Your task to perform on an android device: Play the last video I watched on Youtube Image 0: 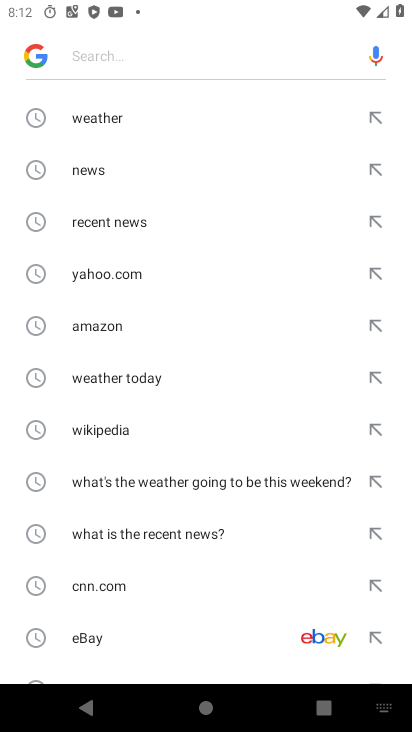
Step 0: press home button
Your task to perform on an android device: Play the last video I watched on Youtube Image 1: 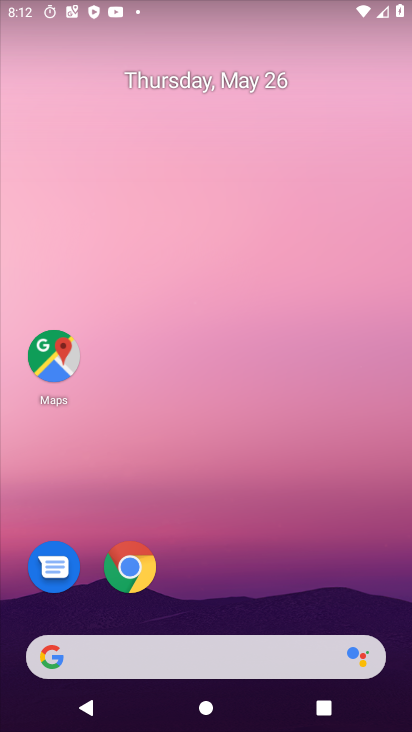
Step 1: drag from (144, 657) to (332, 11)
Your task to perform on an android device: Play the last video I watched on Youtube Image 2: 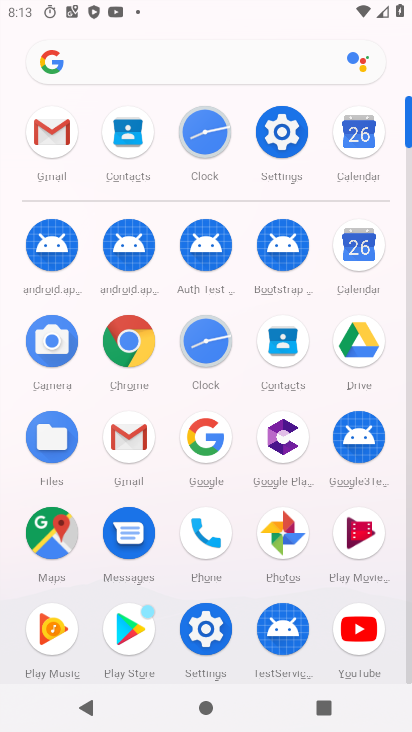
Step 2: click (363, 639)
Your task to perform on an android device: Play the last video I watched on Youtube Image 3: 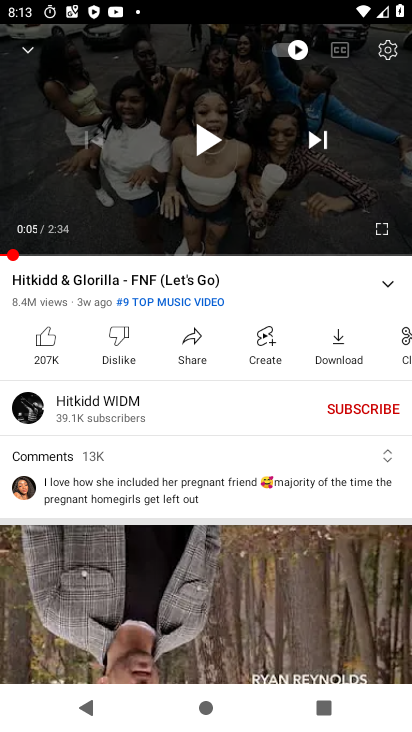
Step 3: click (218, 150)
Your task to perform on an android device: Play the last video I watched on Youtube Image 4: 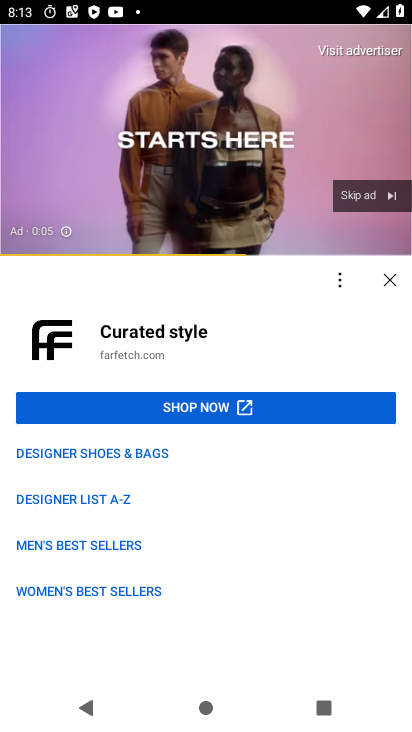
Step 4: click (360, 201)
Your task to perform on an android device: Play the last video I watched on Youtube Image 5: 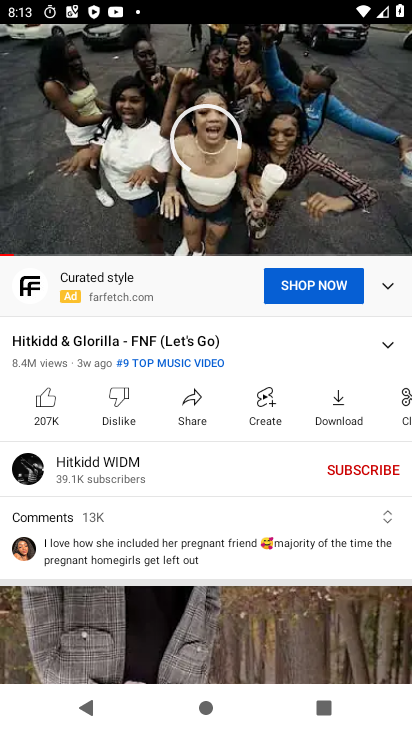
Step 5: click (219, 141)
Your task to perform on an android device: Play the last video I watched on Youtube Image 6: 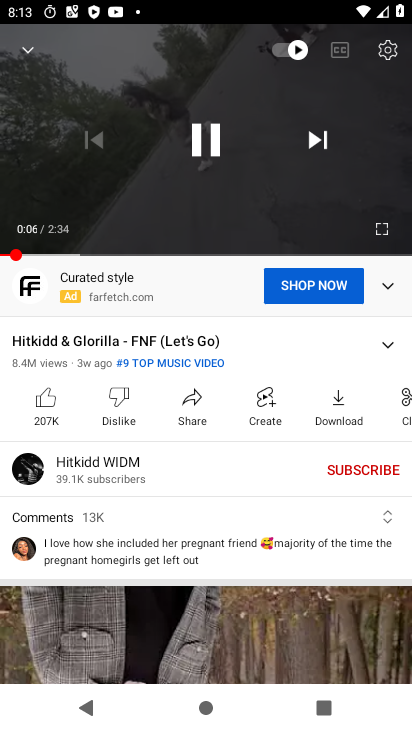
Step 6: click (218, 142)
Your task to perform on an android device: Play the last video I watched on Youtube Image 7: 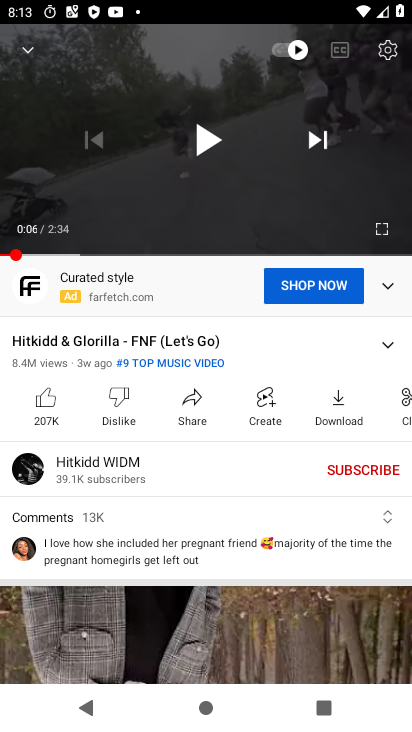
Step 7: task complete